Your task to perform on an android device: turn off wifi Image 0: 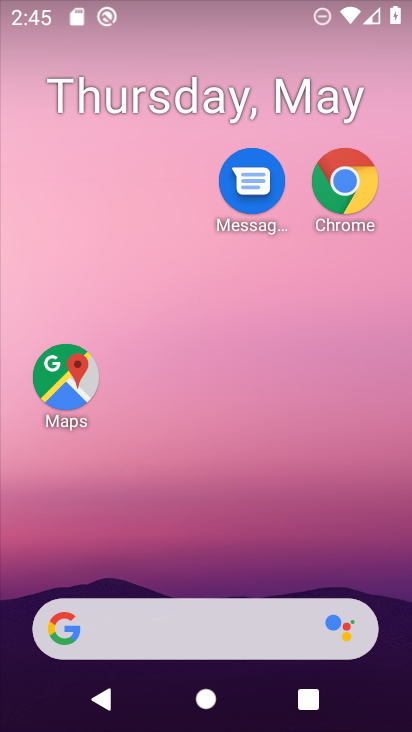
Step 0: drag from (229, 610) to (395, 0)
Your task to perform on an android device: turn off wifi Image 1: 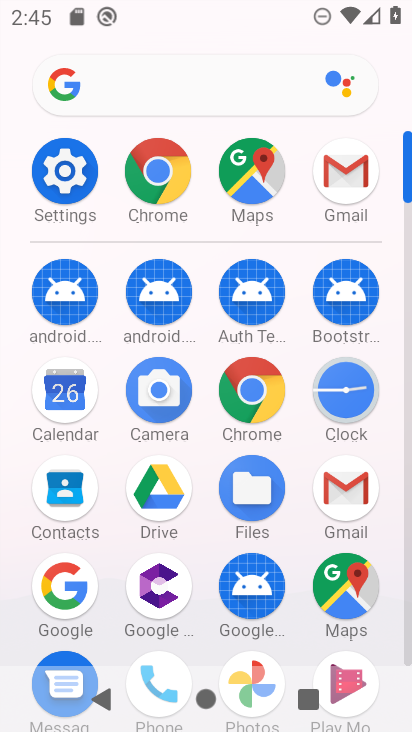
Step 1: click (70, 174)
Your task to perform on an android device: turn off wifi Image 2: 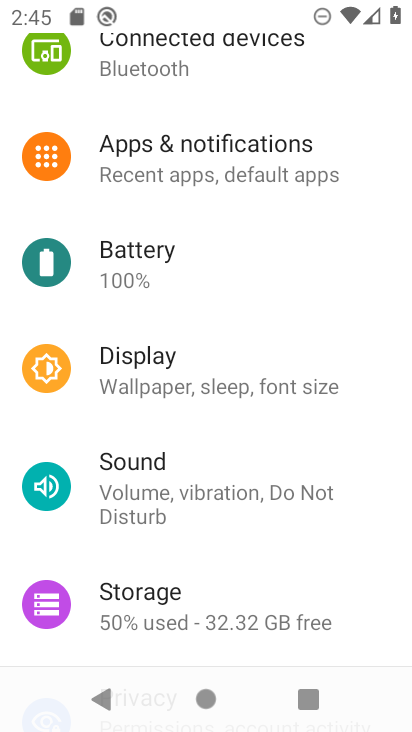
Step 2: drag from (273, 93) to (250, 688)
Your task to perform on an android device: turn off wifi Image 3: 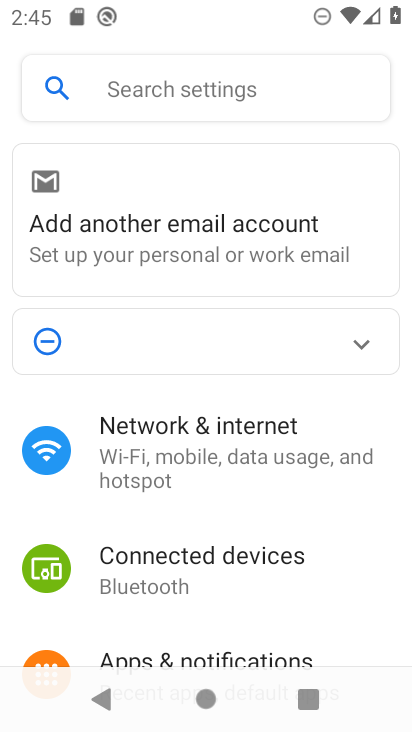
Step 3: click (152, 472)
Your task to perform on an android device: turn off wifi Image 4: 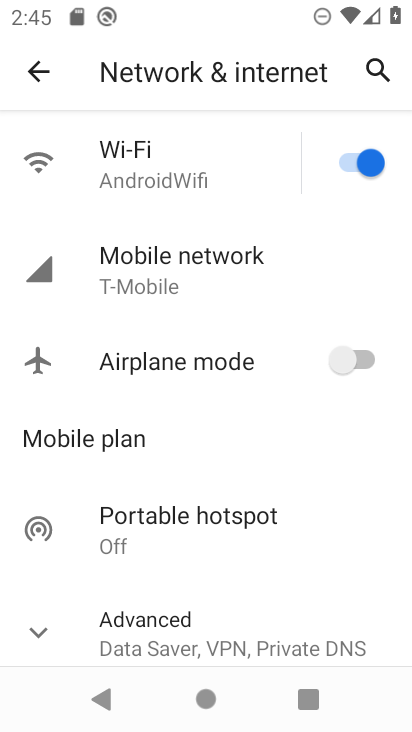
Step 4: click (344, 163)
Your task to perform on an android device: turn off wifi Image 5: 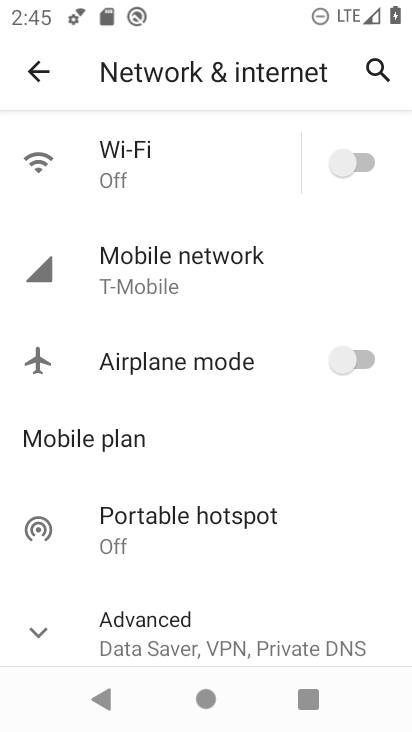
Step 5: task complete